Your task to perform on an android device: Open maps Image 0: 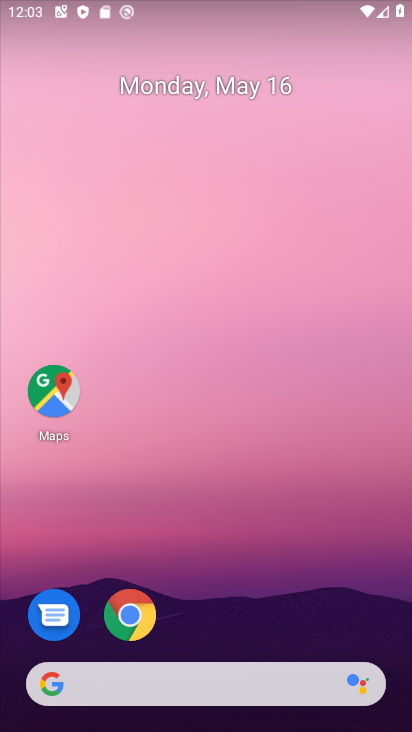
Step 0: drag from (263, 669) to (259, 48)
Your task to perform on an android device: Open maps Image 1: 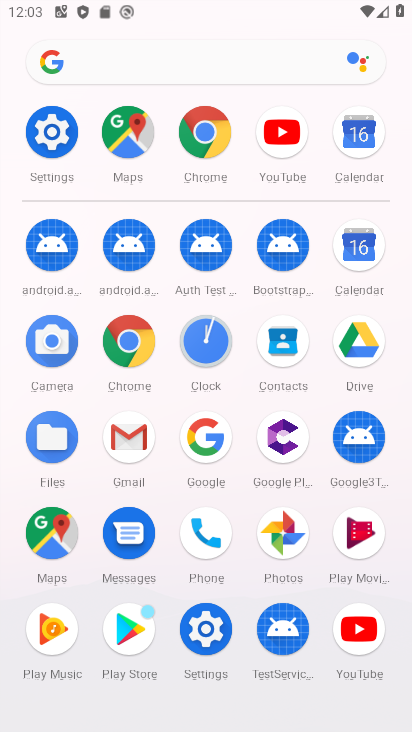
Step 1: click (58, 515)
Your task to perform on an android device: Open maps Image 2: 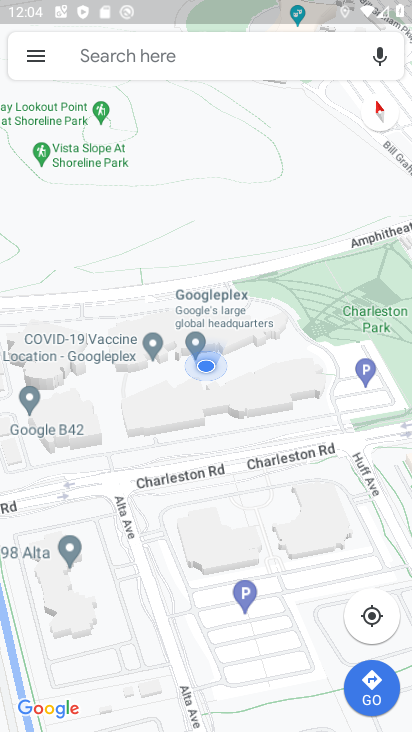
Step 2: task complete